Your task to perform on an android device: Go to CNN.com Image 0: 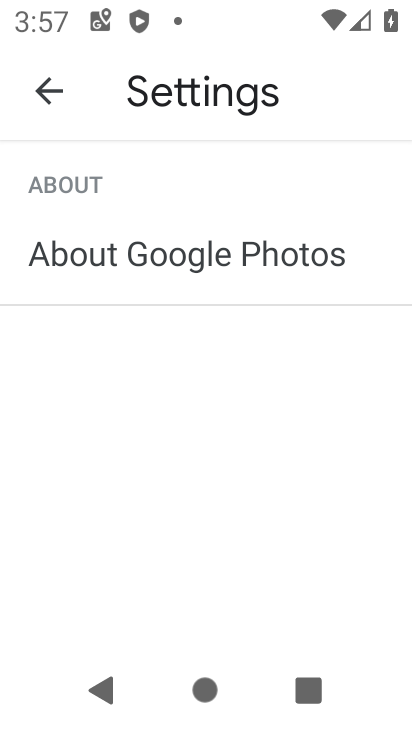
Step 0: press home button
Your task to perform on an android device: Go to CNN.com Image 1: 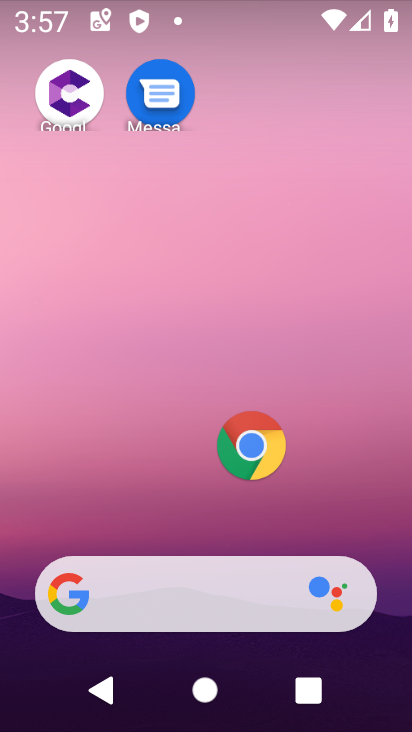
Step 1: click (253, 443)
Your task to perform on an android device: Go to CNN.com Image 2: 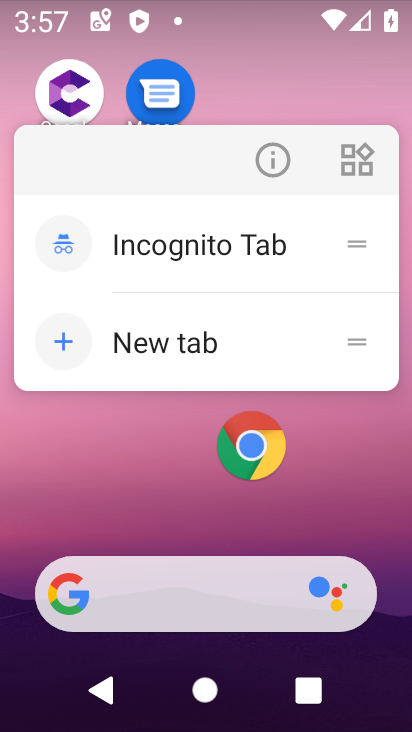
Step 2: click (249, 461)
Your task to perform on an android device: Go to CNN.com Image 3: 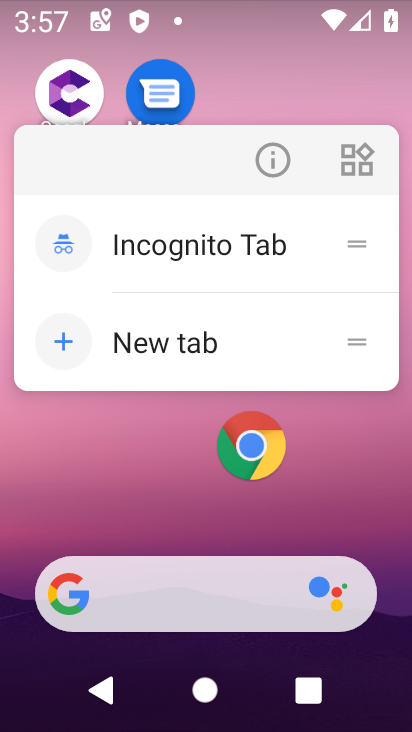
Step 3: click (251, 459)
Your task to perform on an android device: Go to CNN.com Image 4: 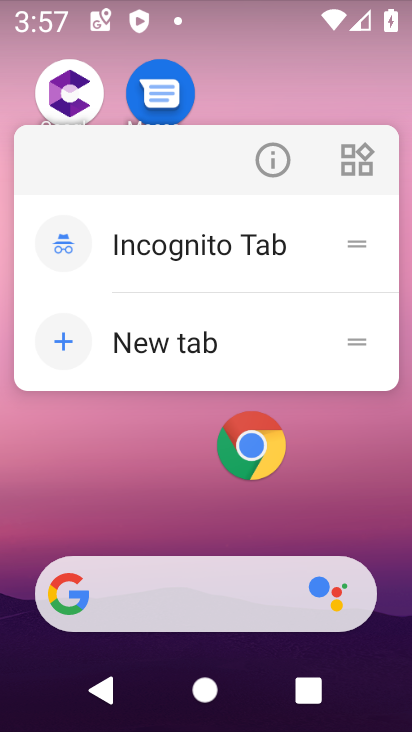
Step 4: click (244, 457)
Your task to perform on an android device: Go to CNN.com Image 5: 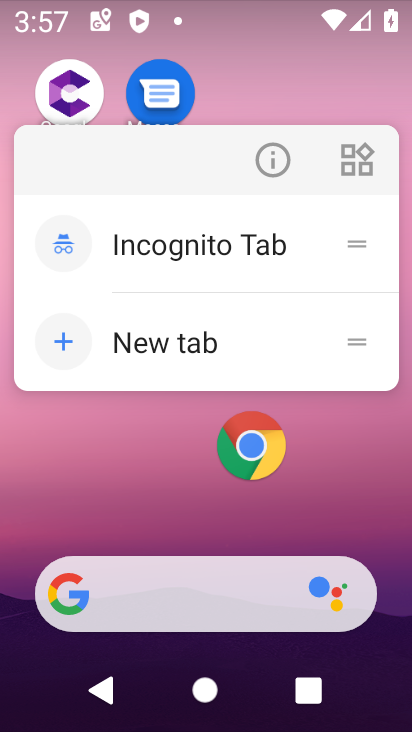
Step 5: click (242, 462)
Your task to perform on an android device: Go to CNN.com Image 6: 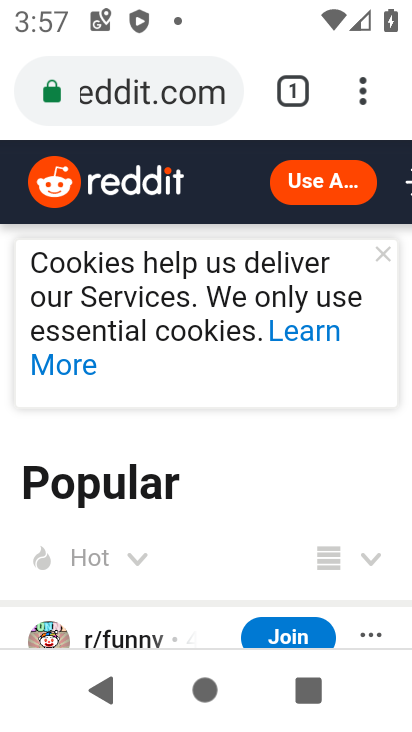
Step 6: click (186, 105)
Your task to perform on an android device: Go to CNN.com Image 7: 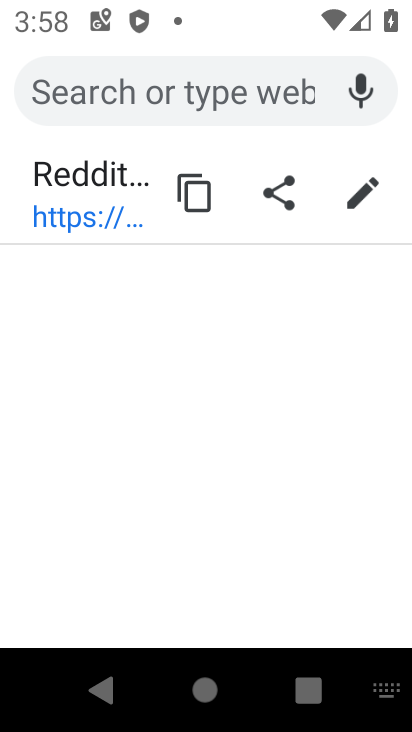
Step 7: type "cnn.com"
Your task to perform on an android device: Go to CNN.com Image 8: 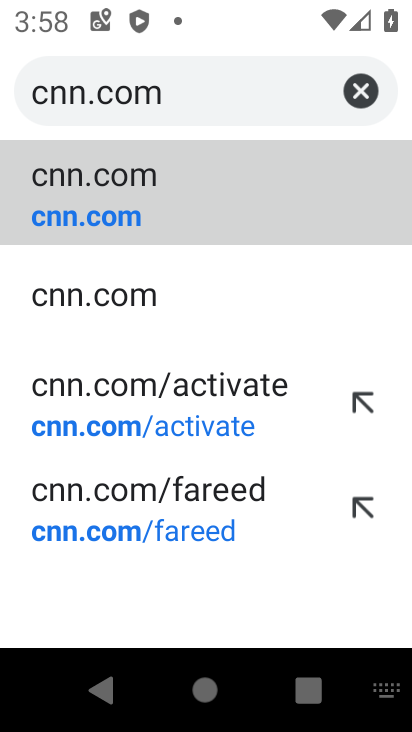
Step 8: click (168, 189)
Your task to perform on an android device: Go to CNN.com Image 9: 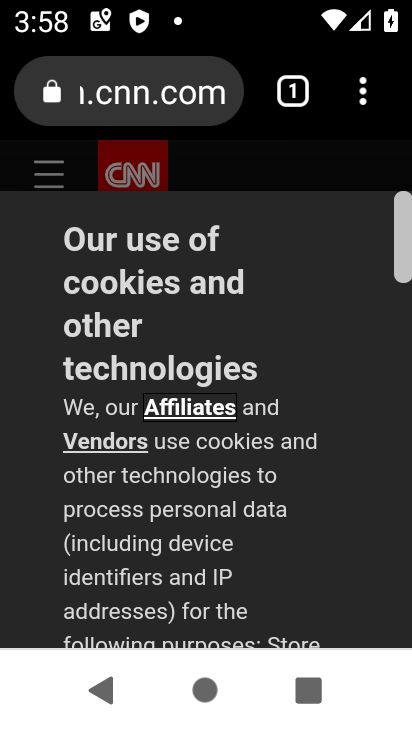
Step 9: task complete